Your task to perform on an android device: Go to sound settings Image 0: 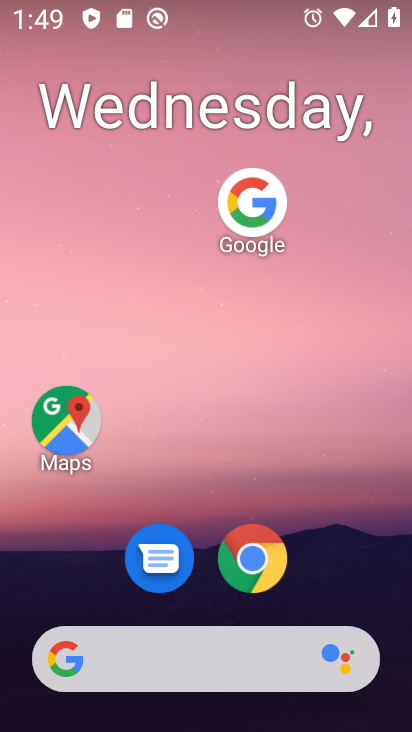
Step 0: drag from (380, 598) to (342, 242)
Your task to perform on an android device: Go to sound settings Image 1: 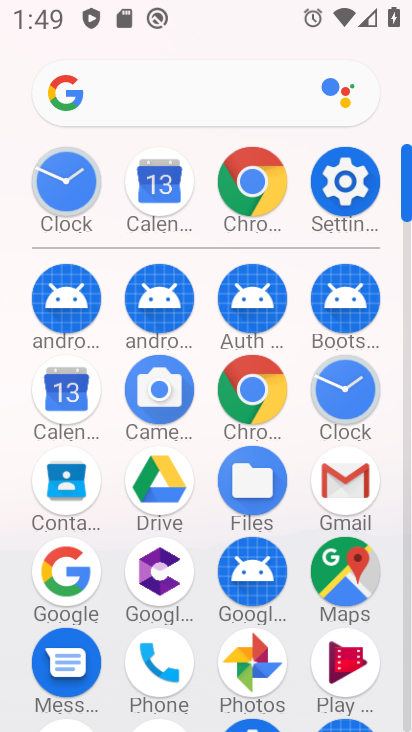
Step 1: click (351, 194)
Your task to perform on an android device: Go to sound settings Image 2: 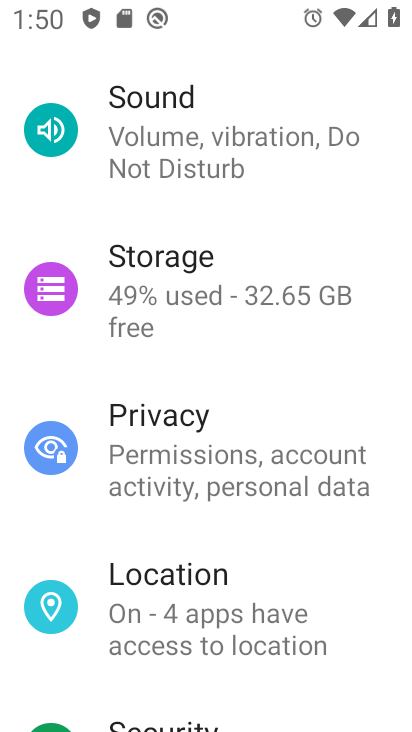
Step 2: click (300, 165)
Your task to perform on an android device: Go to sound settings Image 3: 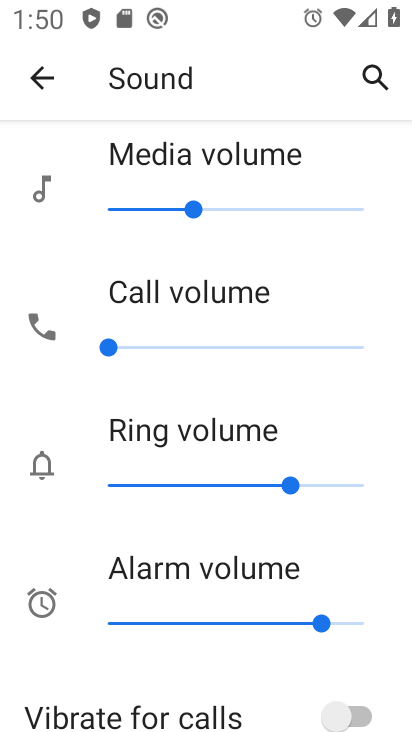
Step 3: task complete